Your task to perform on an android device: turn on improve location accuracy Image 0: 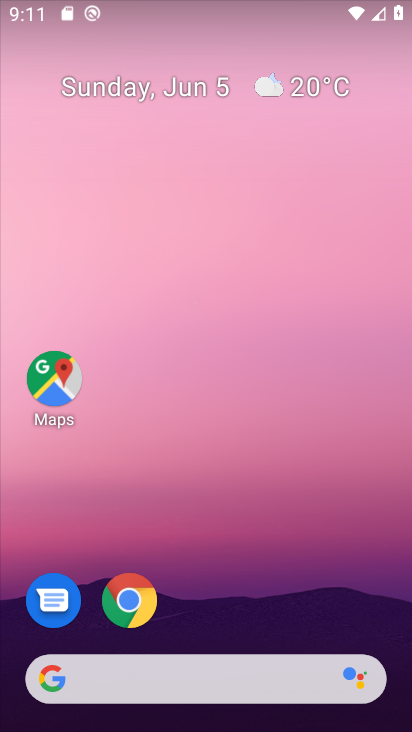
Step 0: drag from (230, 583) to (301, 13)
Your task to perform on an android device: turn on improve location accuracy Image 1: 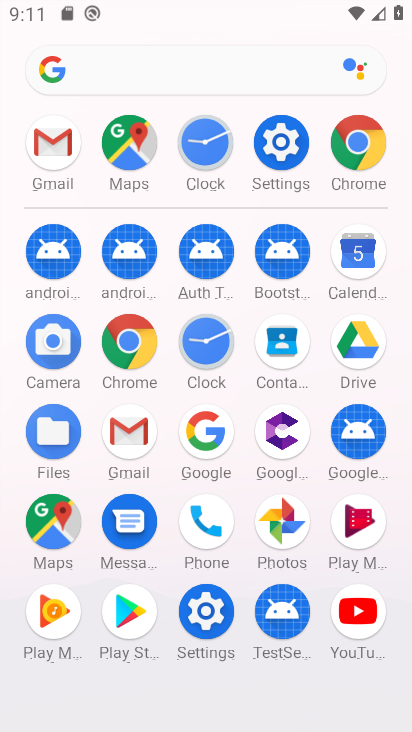
Step 1: click (280, 142)
Your task to perform on an android device: turn on improve location accuracy Image 2: 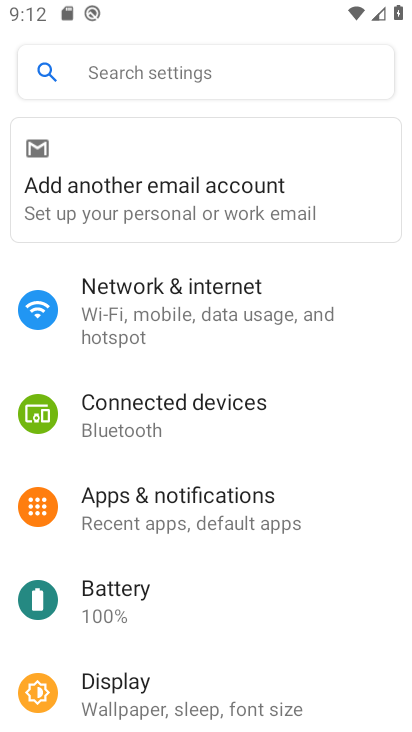
Step 2: drag from (243, 577) to (284, 84)
Your task to perform on an android device: turn on improve location accuracy Image 3: 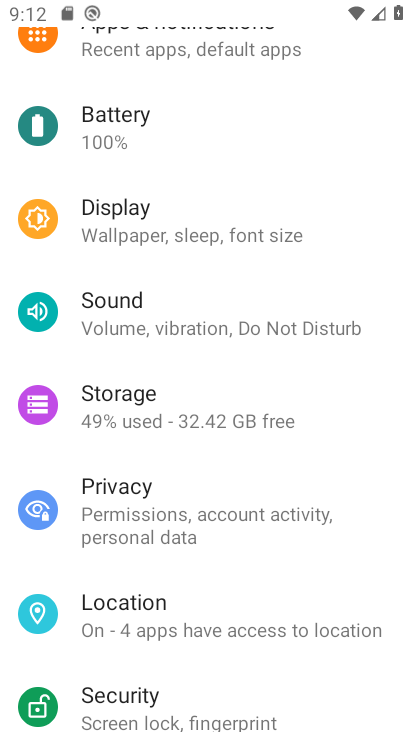
Step 3: click (188, 625)
Your task to perform on an android device: turn on improve location accuracy Image 4: 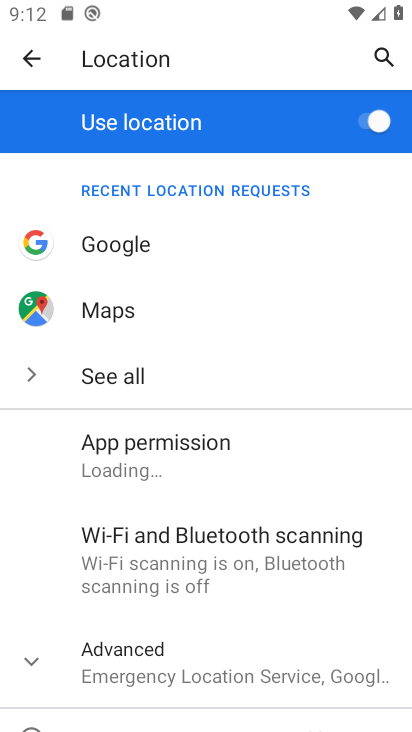
Step 4: click (30, 653)
Your task to perform on an android device: turn on improve location accuracy Image 5: 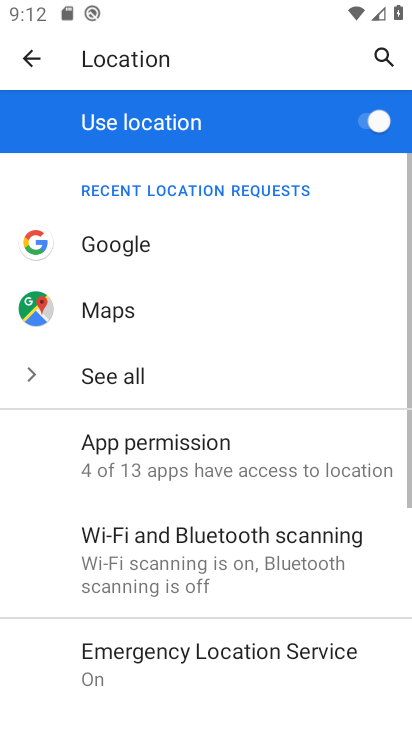
Step 5: drag from (211, 582) to (252, 207)
Your task to perform on an android device: turn on improve location accuracy Image 6: 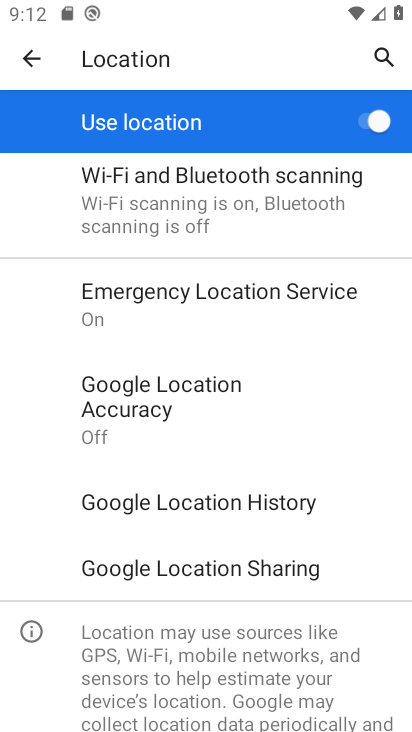
Step 6: click (215, 394)
Your task to perform on an android device: turn on improve location accuracy Image 7: 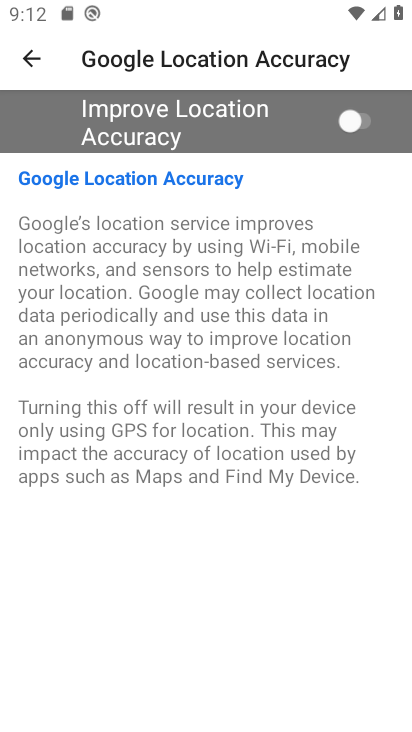
Step 7: click (350, 124)
Your task to perform on an android device: turn on improve location accuracy Image 8: 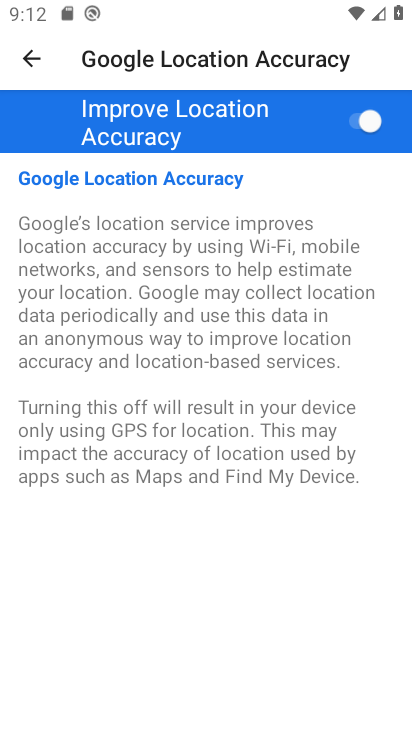
Step 8: task complete